Your task to perform on an android device: Go to Google Image 0: 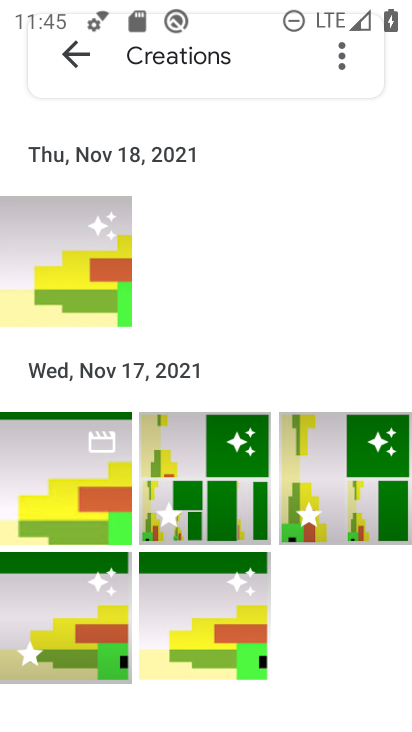
Step 0: press home button
Your task to perform on an android device: Go to Google Image 1: 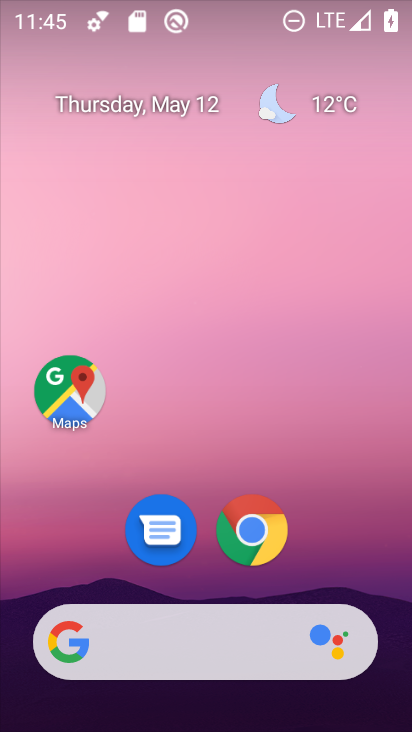
Step 1: drag from (208, 652) to (257, 334)
Your task to perform on an android device: Go to Google Image 2: 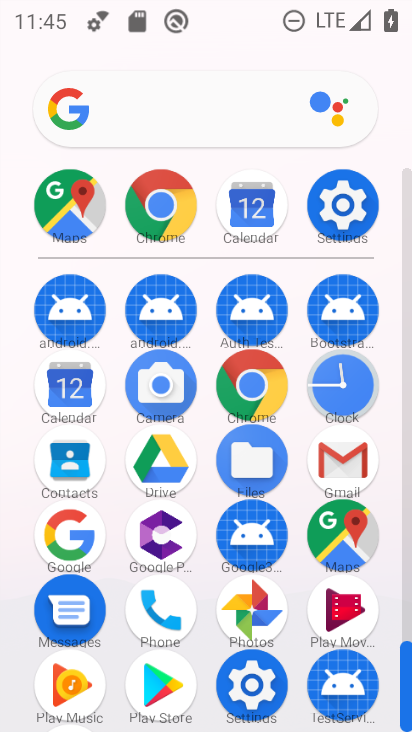
Step 2: click (84, 539)
Your task to perform on an android device: Go to Google Image 3: 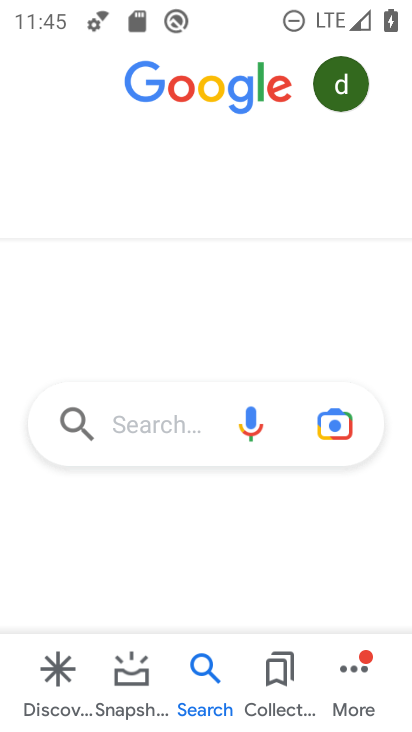
Step 3: task complete